Your task to perform on an android device: change text size in settings app Image 0: 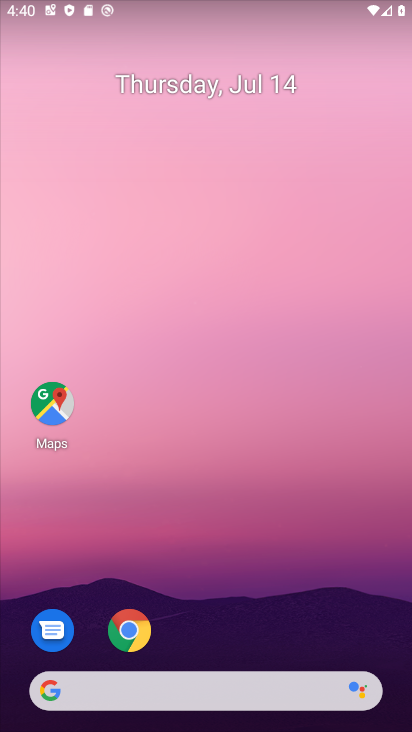
Step 0: drag from (204, 609) to (254, 36)
Your task to perform on an android device: change text size in settings app Image 1: 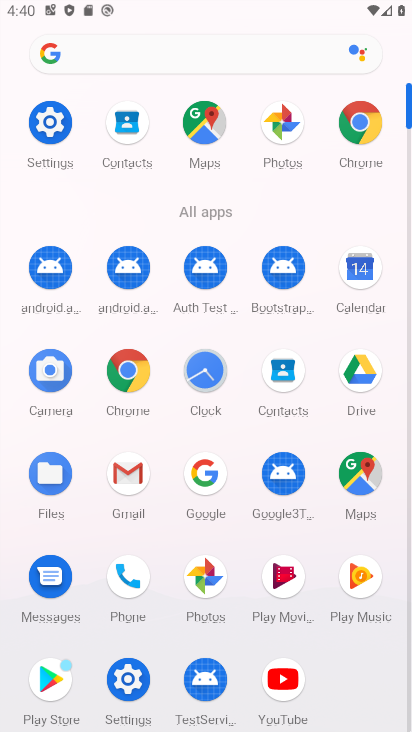
Step 1: click (62, 111)
Your task to perform on an android device: change text size in settings app Image 2: 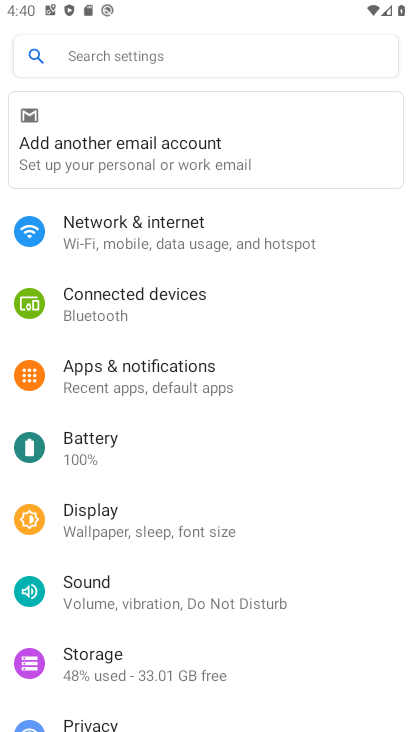
Step 2: click (72, 508)
Your task to perform on an android device: change text size in settings app Image 3: 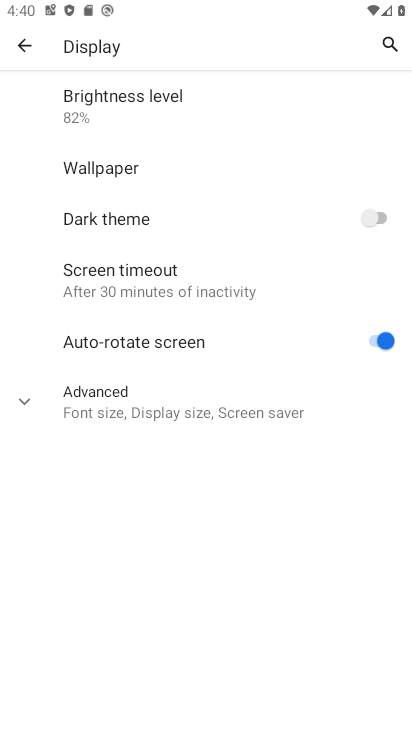
Step 3: click (177, 415)
Your task to perform on an android device: change text size in settings app Image 4: 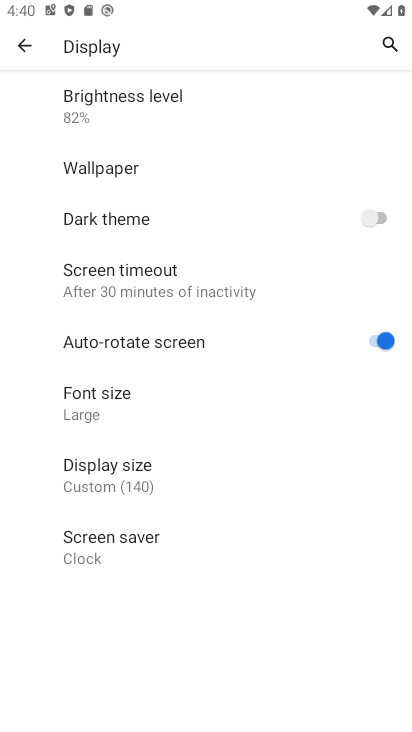
Step 4: click (151, 406)
Your task to perform on an android device: change text size in settings app Image 5: 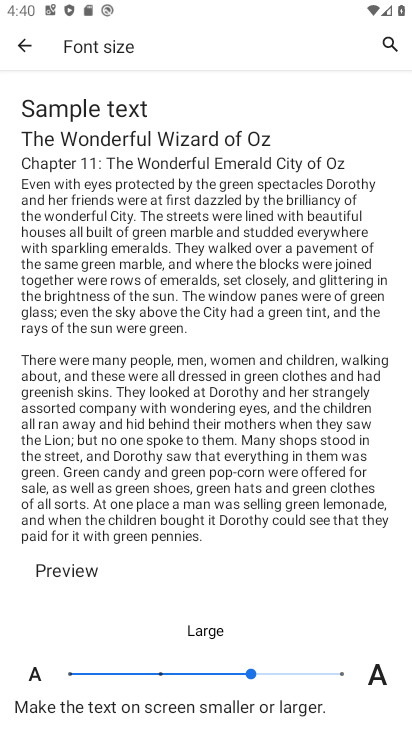
Step 5: click (70, 672)
Your task to perform on an android device: change text size in settings app Image 6: 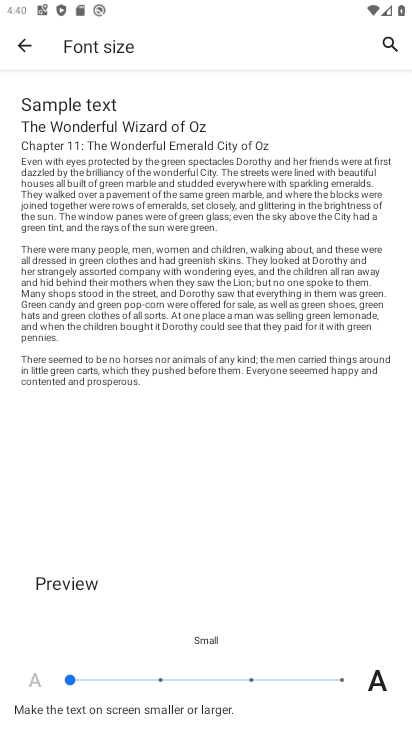
Step 6: task complete